Your task to perform on an android device: toggle airplane mode Image 0: 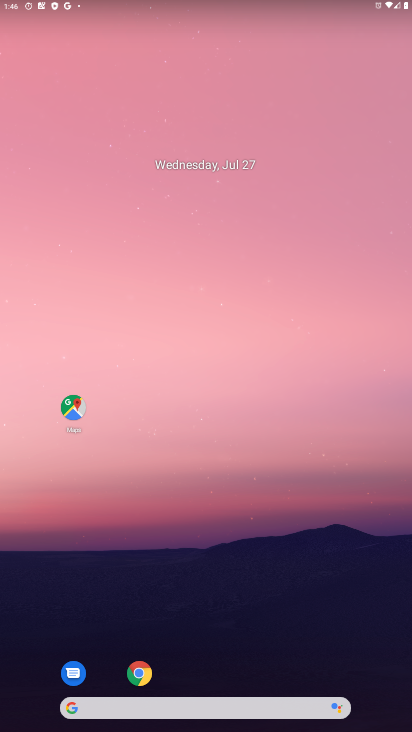
Step 0: drag from (226, 677) to (262, 126)
Your task to perform on an android device: toggle airplane mode Image 1: 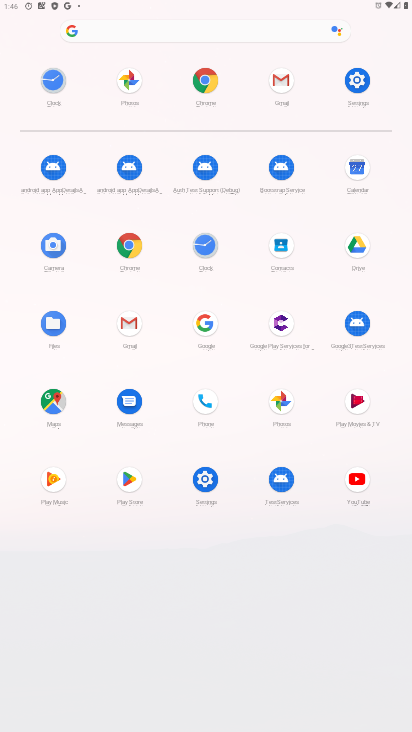
Step 1: click (356, 86)
Your task to perform on an android device: toggle airplane mode Image 2: 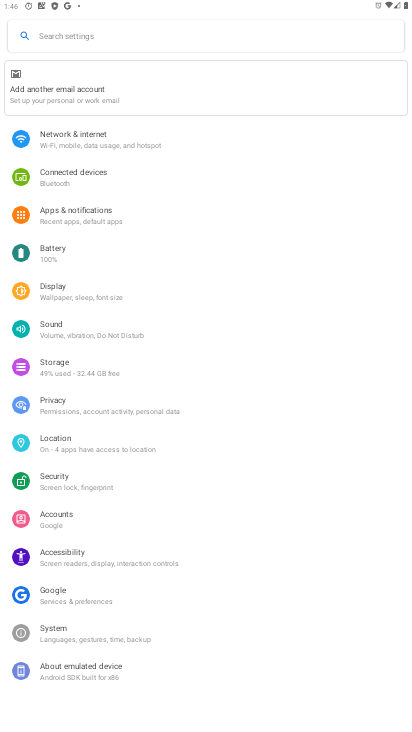
Step 2: click (79, 144)
Your task to perform on an android device: toggle airplane mode Image 3: 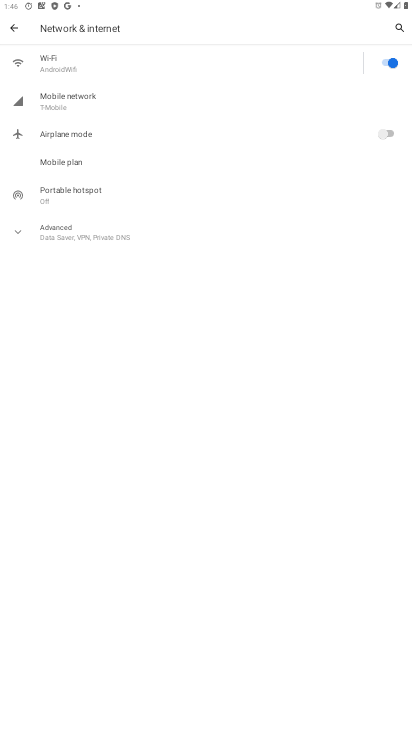
Step 3: click (390, 136)
Your task to perform on an android device: toggle airplane mode Image 4: 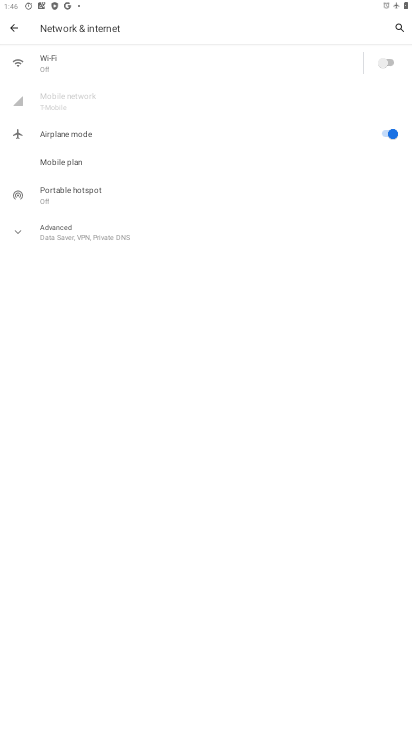
Step 4: task complete